Your task to perform on an android device: Search for sushi restaurants on Maps Image 0: 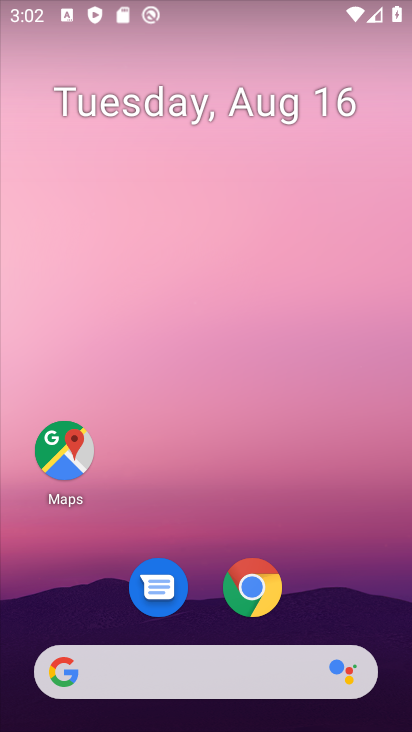
Step 0: click (70, 439)
Your task to perform on an android device: Search for sushi restaurants on Maps Image 1: 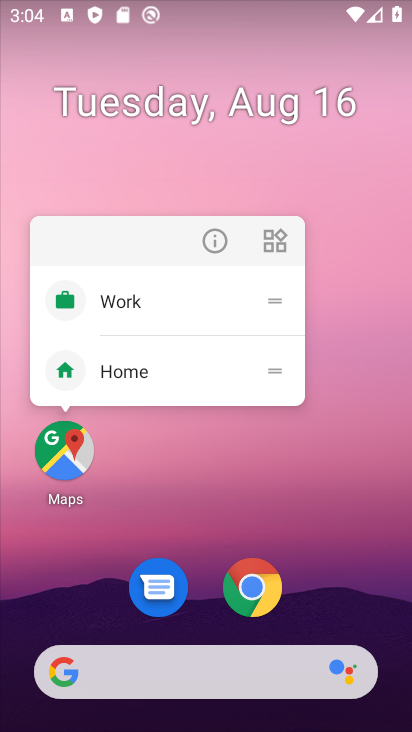
Step 1: click (70, 439)
Your task to perform on an android device: Search for sushi restaurants on Maps Image 2: 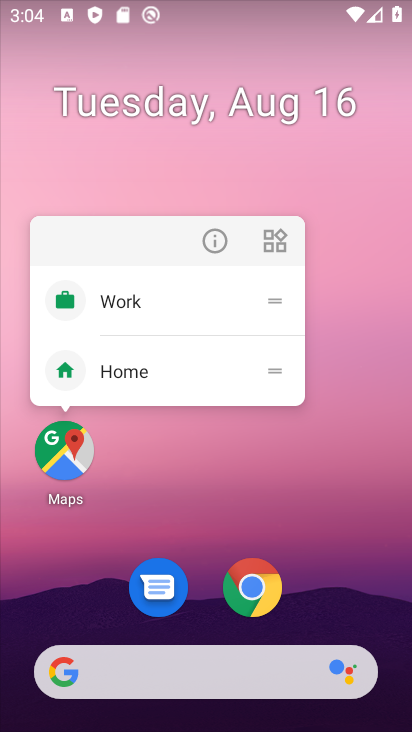
Step 2: click (54, 453)
Your task to perform on an android device: Search for sushi restaurants on Maps Image 3: 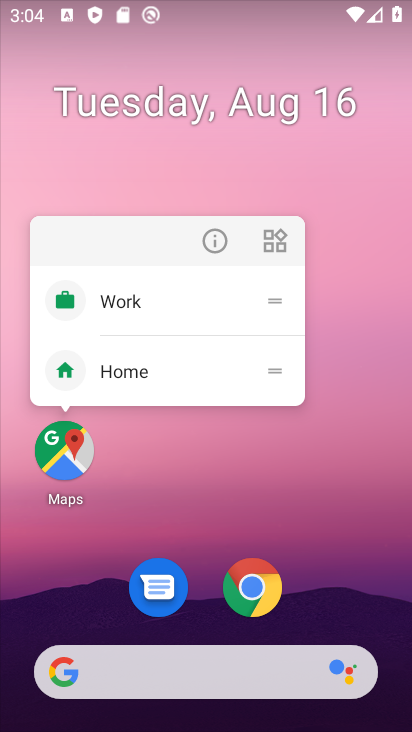
Step 3: click (54, 452)
Your task to perform on an android device: Search for sushi restaurants on Maps Image 4: 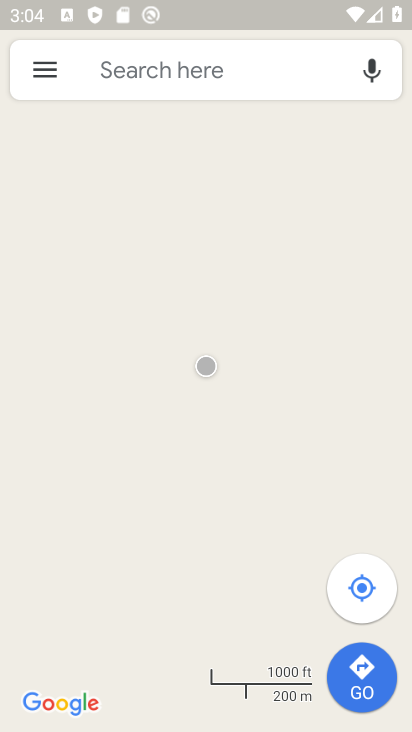
Step 4: click (182, 71)
Your task to perform on an android device: Search for sushi restaurants on Maps Image 5: 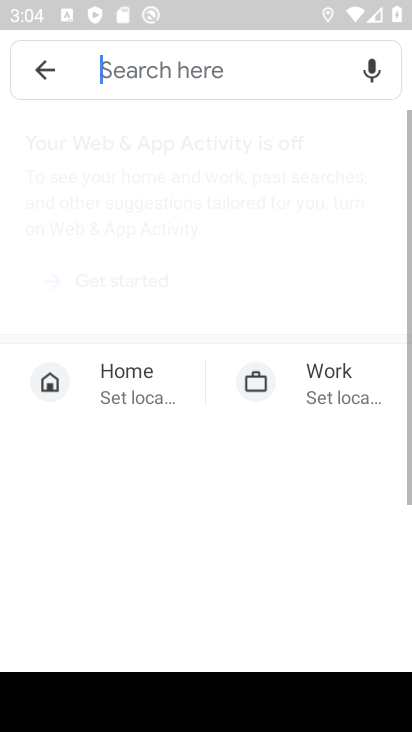
Step 5: click (182, 71)
Your task to perform on an android device: Search for sushi restaurants on Maps Image 6: 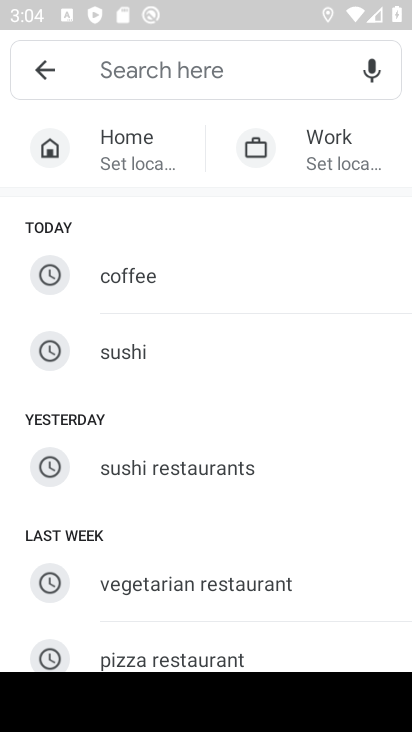
Step 6: click (222, 471)
Your task to perform on an android device: Search for sushi restaurants on Maps Image 7: 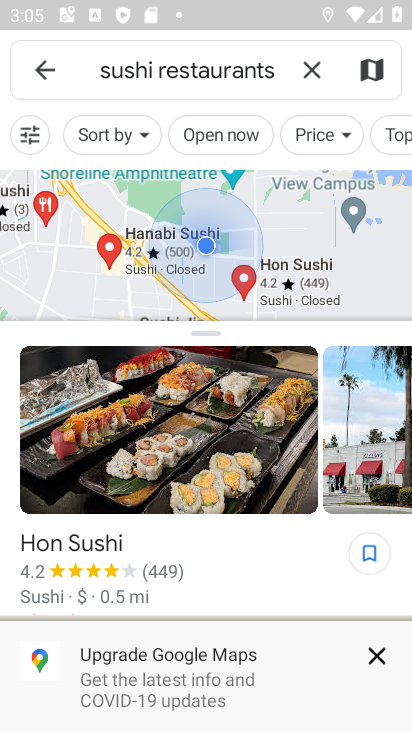
Step 7: task complete